Your task to perform on an android device: Open the phone app and click the voicemail tab. Image 0: 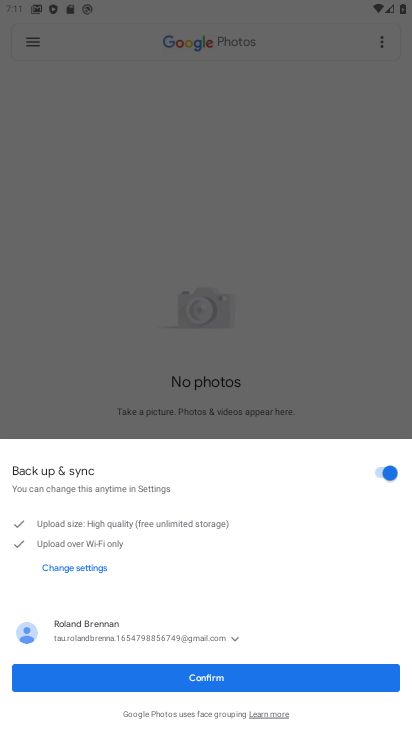
Step 0: press home button
Your task to perform on an android device: Open the phone app and click the voicemail tab. Image 1: 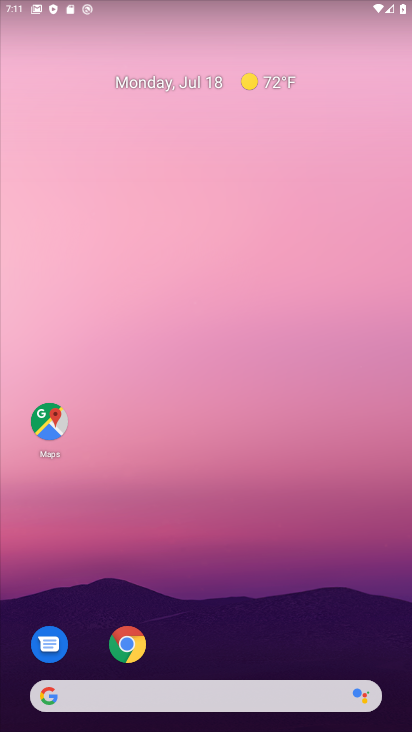
Step 1: drag from (349, 637) to (180, 5)
Your task to perform on an android device: Open the phone app and click the voicemail tab. Image 2: 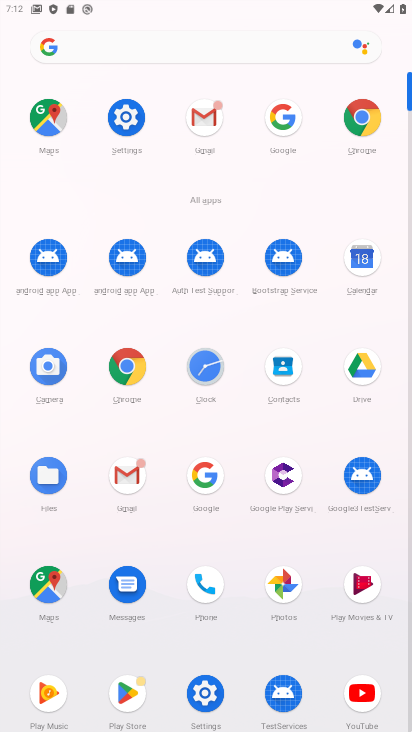
Step 2: click (204, 615)
Your task to perform on an android device: Open the phone app and click the voicemail tab. Image 3: 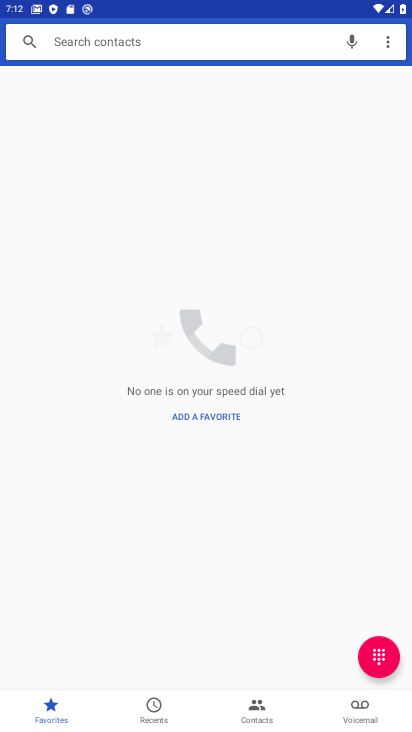
Step 3: click (361, 704)
Your task to perform on an android device: Open the phone app and click the voicemail tab. Image 4: 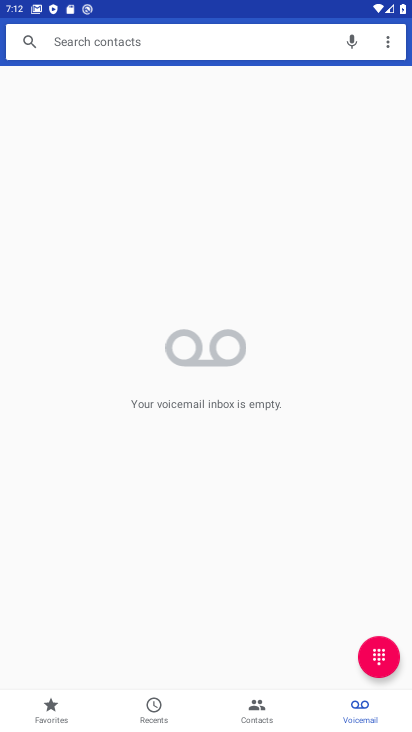
Step 4: task complete